Your task to perform on an android device: Open Amazon Image 0: 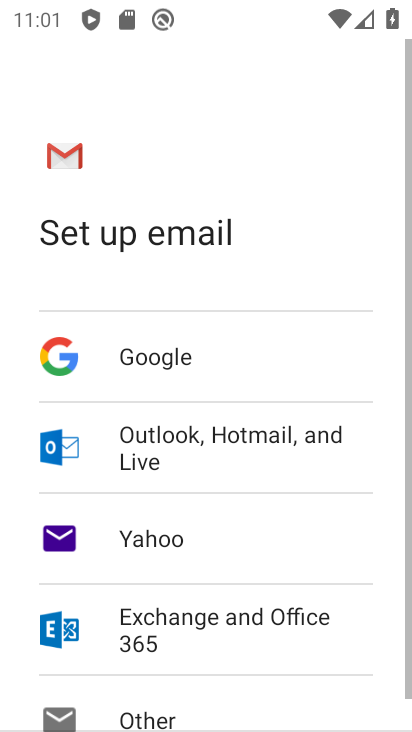
Step 0: press home button
Your task to perform on an android device: Open Amazon Image 1: 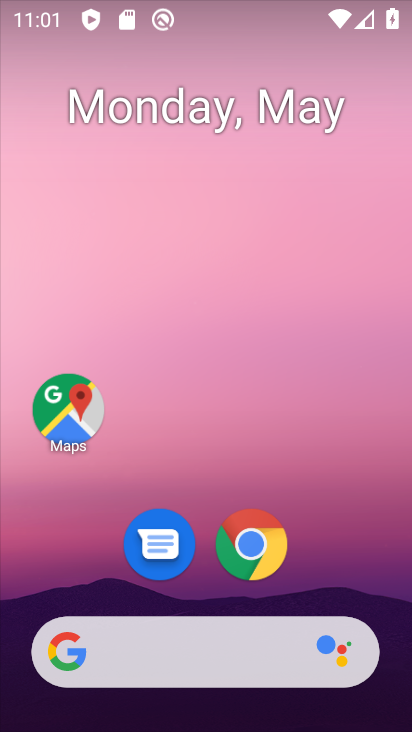
Step 1: drag from (108, 607) to (207, 88)
Your task to perform on an android device: Open Amazon Image 2: 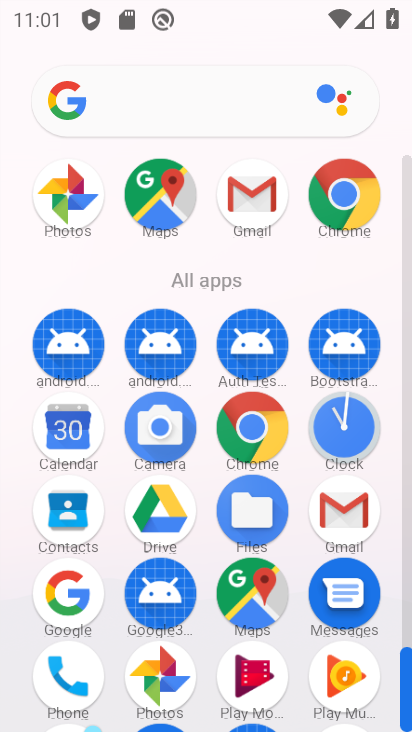
Step 2: click (259, 434)
Your task to perform on an android device: Open Amazon Image 3: 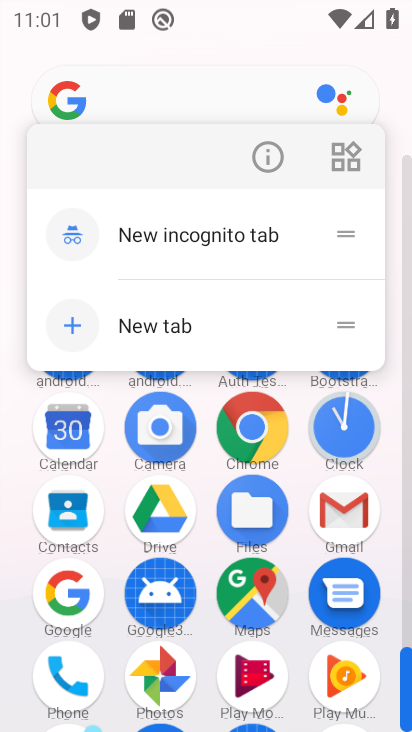
Step 3: click (259, 434)
Your task to perform on an android device: Open Amazon Image 4: 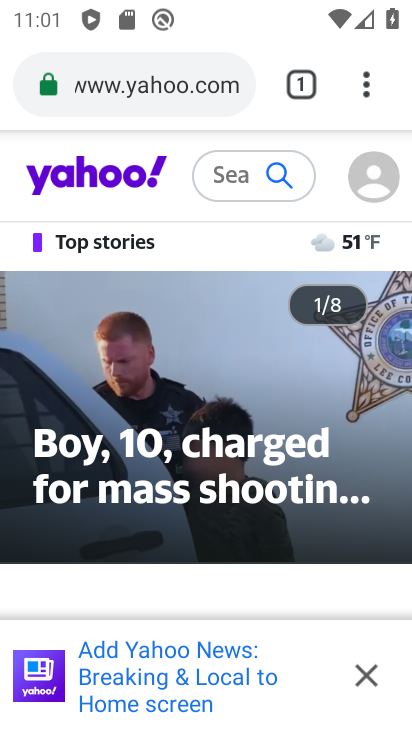
Step 4: drag from (375, 91) to (348, 157)
Your task to perform on an android device: Open Amazon Image 5: 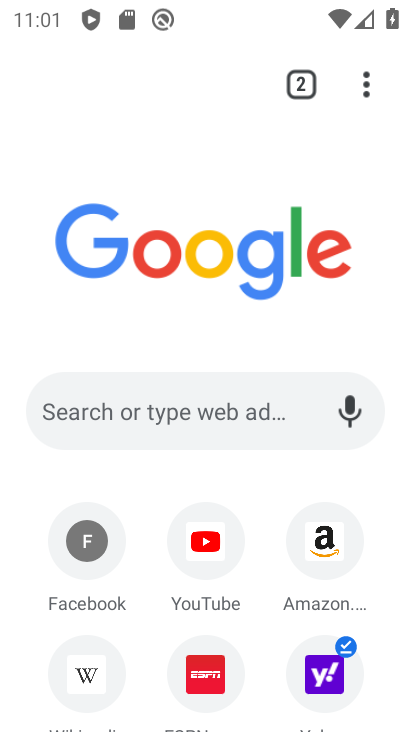
Step 5: drag from (263, 614) to (300, 393)
Your task to perform on an android device: Open Amazon Image 6: 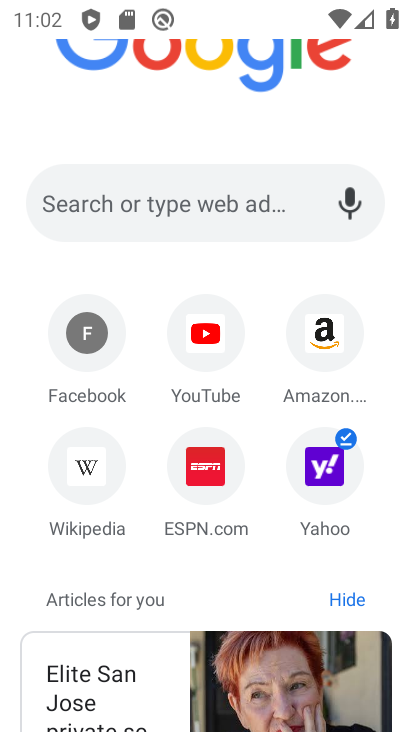
Step 6: click (339, 339)
Your task to perform on an android device: Open Amazon Image 7: 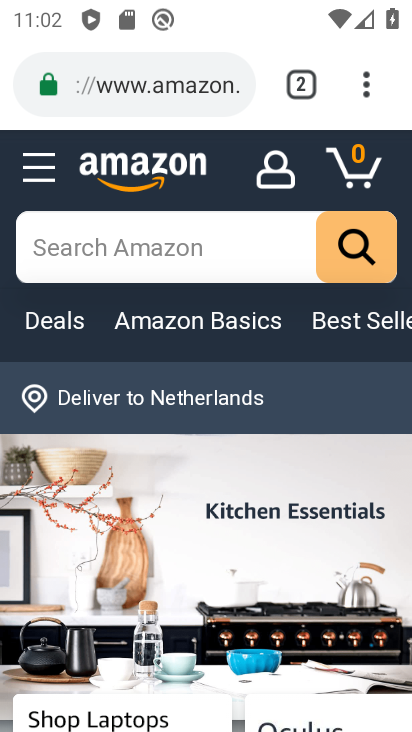
Step 7: task complete